Your task to perform on an android device: turn pop-ups off in chrome Image 0: 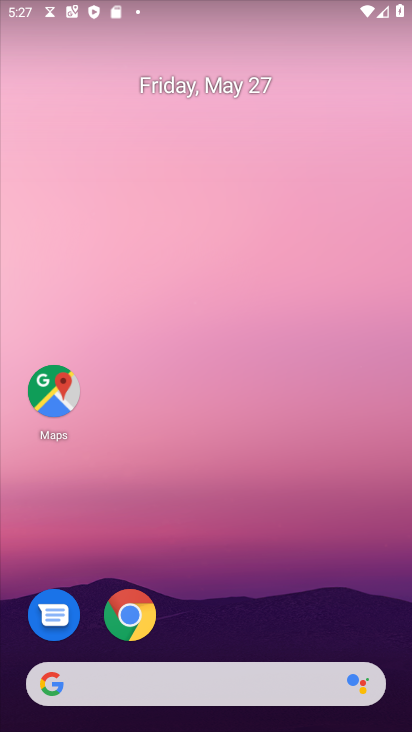
Step 0: click (132, 612)
Your task to perform on an android device: turn pop-ups off in chrome Image 1: 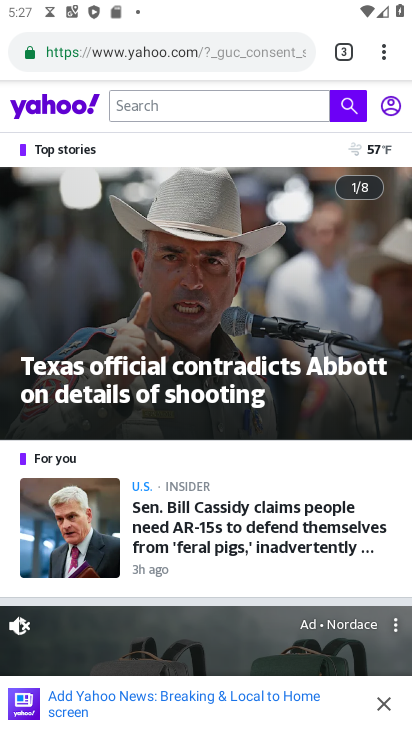
Step 1: click (385, 54)
Your task to perform on an android device: turn pop-ups off in chrome Image 2: 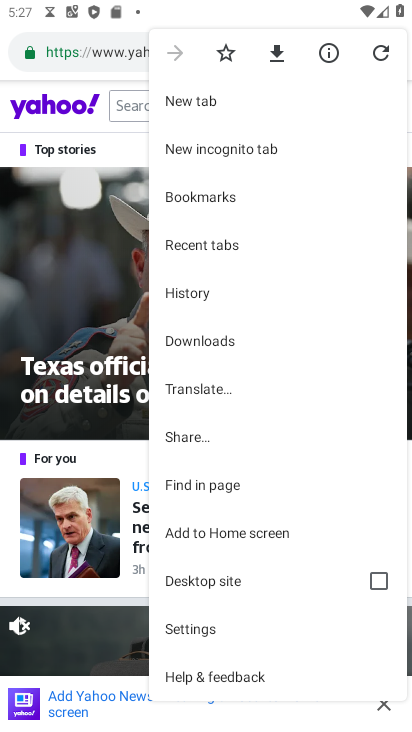
Step 2: click (240, 633)
Your task to perform on an android device: turn pop-ups off in chrome Image 3: 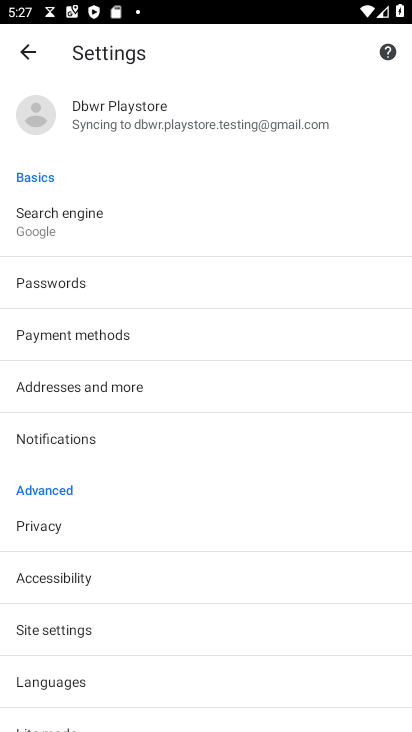
Step 3: click (144, 626)
Your task to perform on an android device: turn pop-ups off in chrome Image 4: 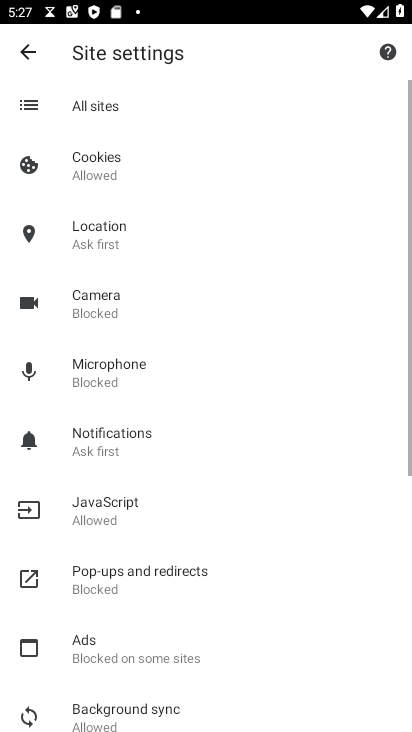
Step 4: click (185, 591)
Your task to perform on an android device: turn pop-ups off in chrome Image 5: 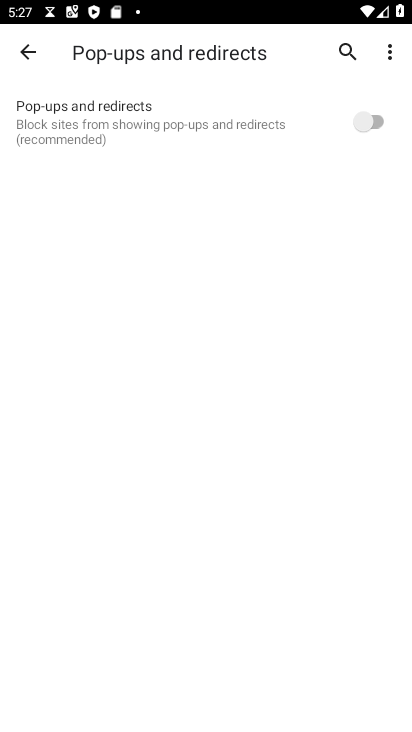
Step 5: task complete